Your task to perform on an android device: all mails in gmail Image 0: 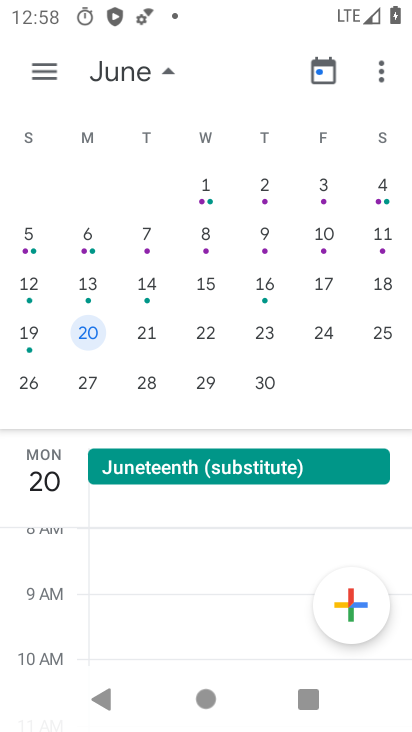
Step 0: press home button
Your task to perform on an android device: all mails in gmail Image 1: 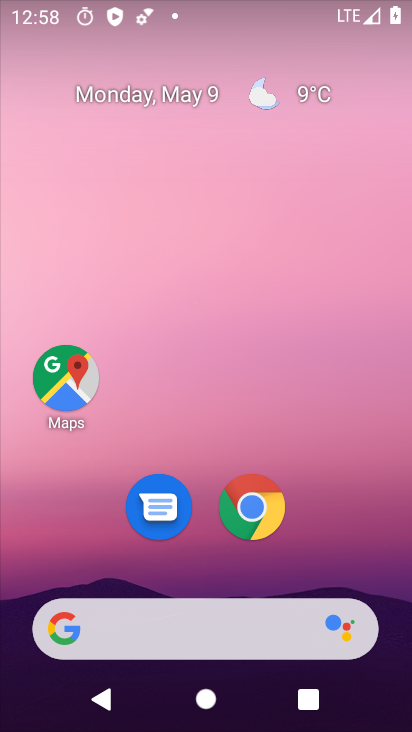
Step 1: drag from (227, 729) to (212, 143)
Your task to perform on an android device: all mails in gmail Image 2: 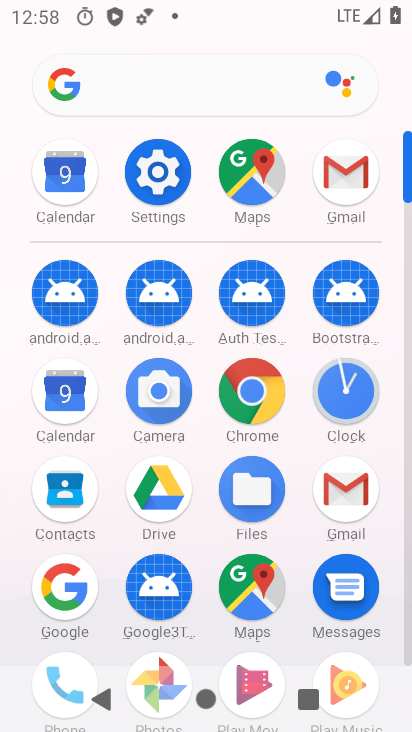
Step 2: click (348, 496)
Your task to perform on an android device: all mails in gmail Image 3: 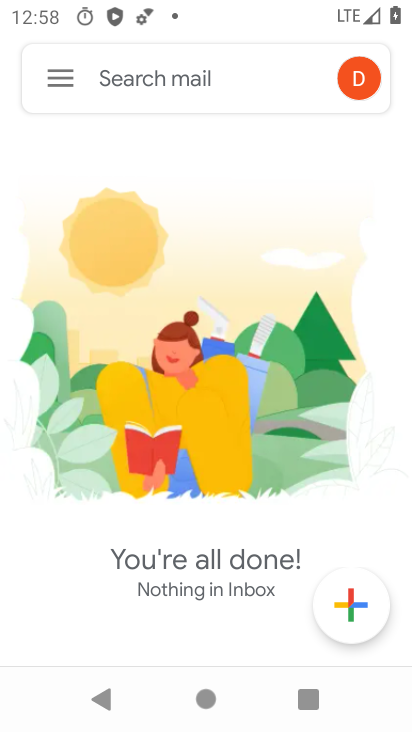
Step 3: click (61, 72)
Your task to perform on an android device: all mails in gmail Image 4: 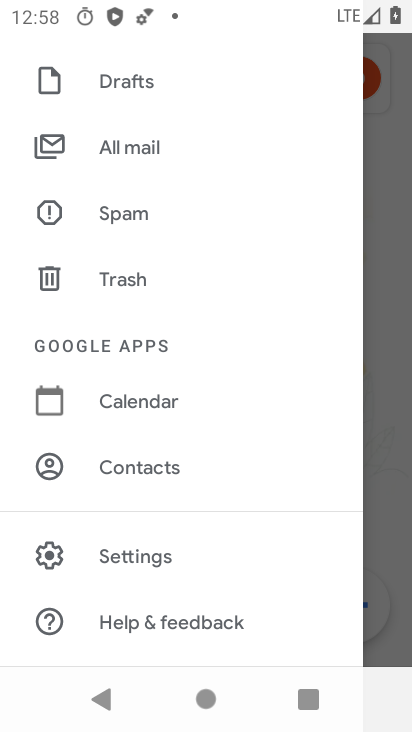
Step 4: click (131, 143)
Your task to perform on an android device: all mails in gmail Image 5: 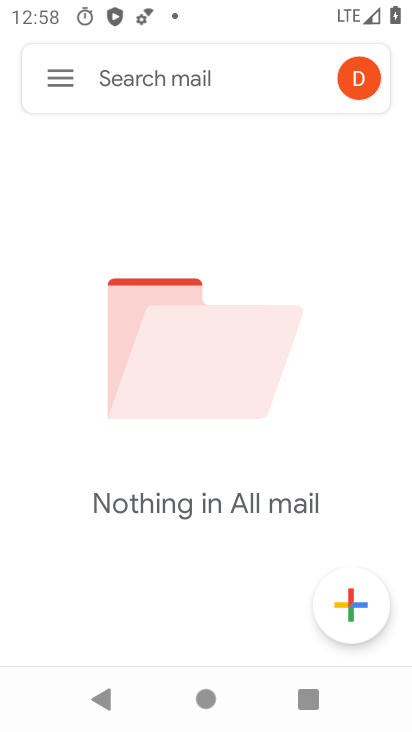
Step 5: task complete